Your task to perform on an android device: open a new tab in the chrome app Image 0: 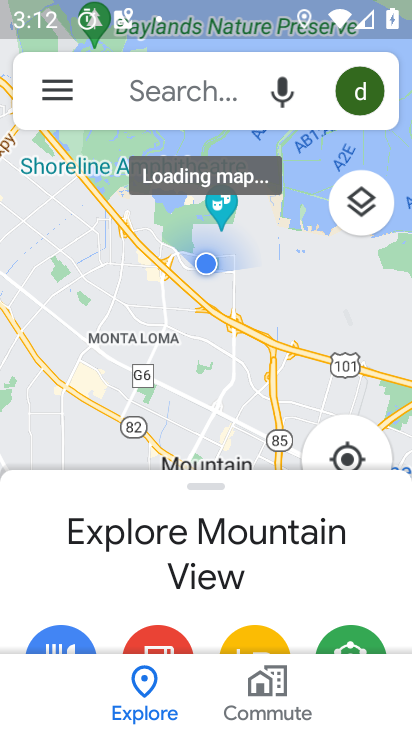
Step 0: press home button
Your task to perform on an android device: open a new tab in the chrome app Image 1: 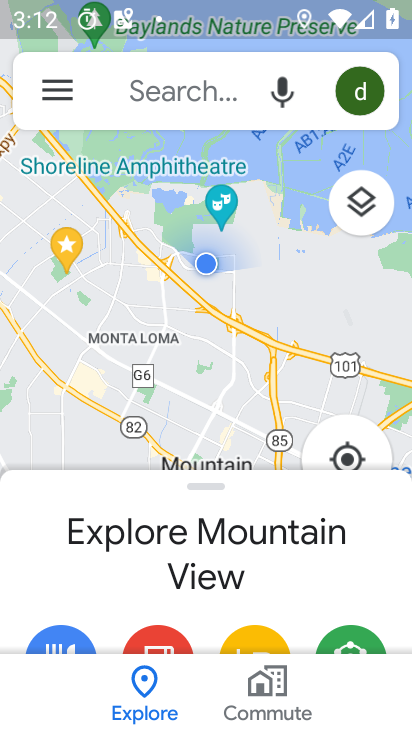
Step 1: press home button
Your task to perform on an android device: open a new tab in the chrome app Image 2: 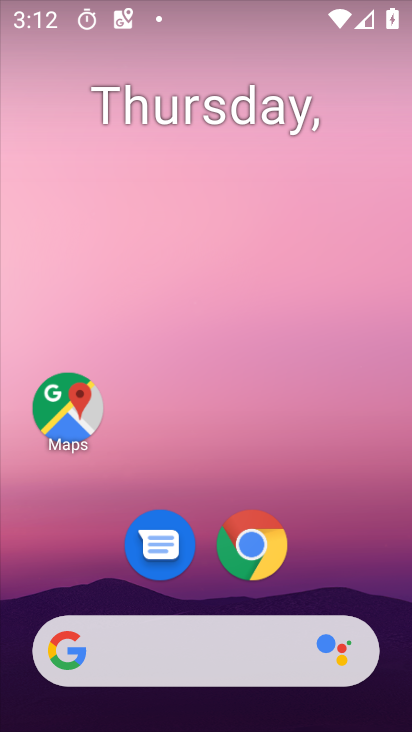
Step 2: click (260, 540)
Your task to perform on an android device: open a new tab in the chrome app Image 3: 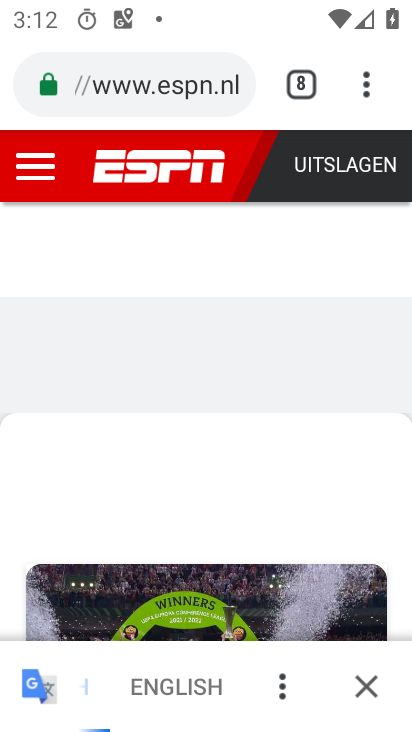
Step 3: click (366, 94)
Your task to perform on an android device: open a new tab in the chrome app Image 4: 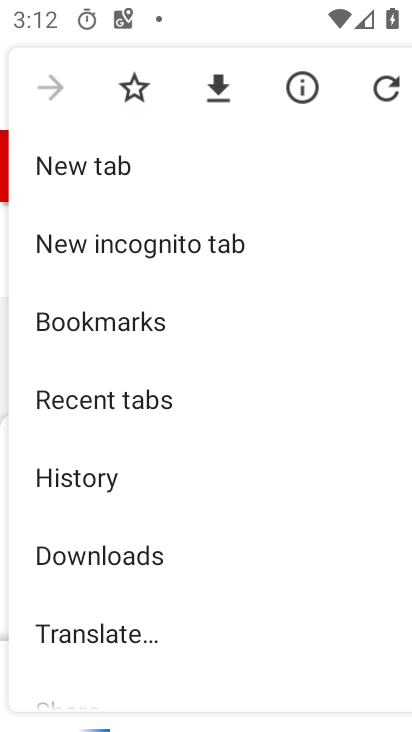
Step 4: click (85, 167)
Your task to perform on an android device: open a new tab in the chrome app Image 5: 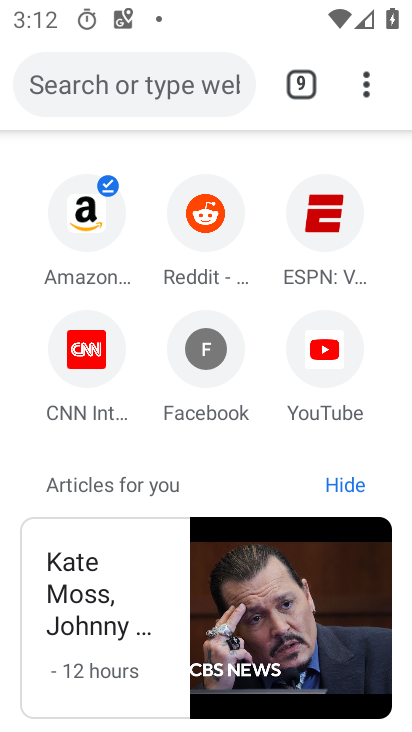
Step 5: task complete